Your task to perform on an android device: search for starred emails in the gmail app Image 0: 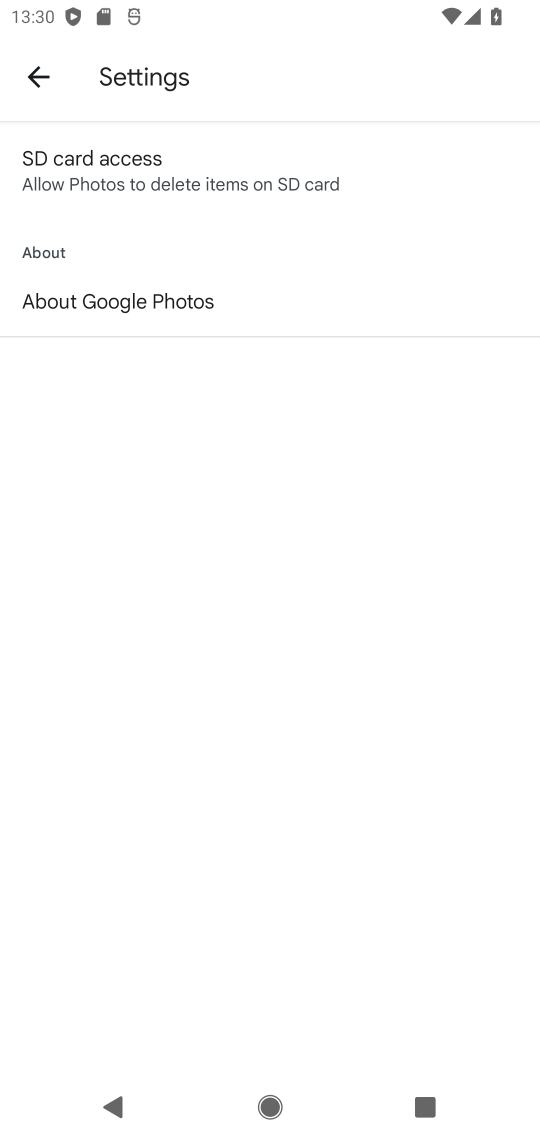
Step 0: press home button
Your task to perform on an android device: search for starred emails in the gmail app Image 1: 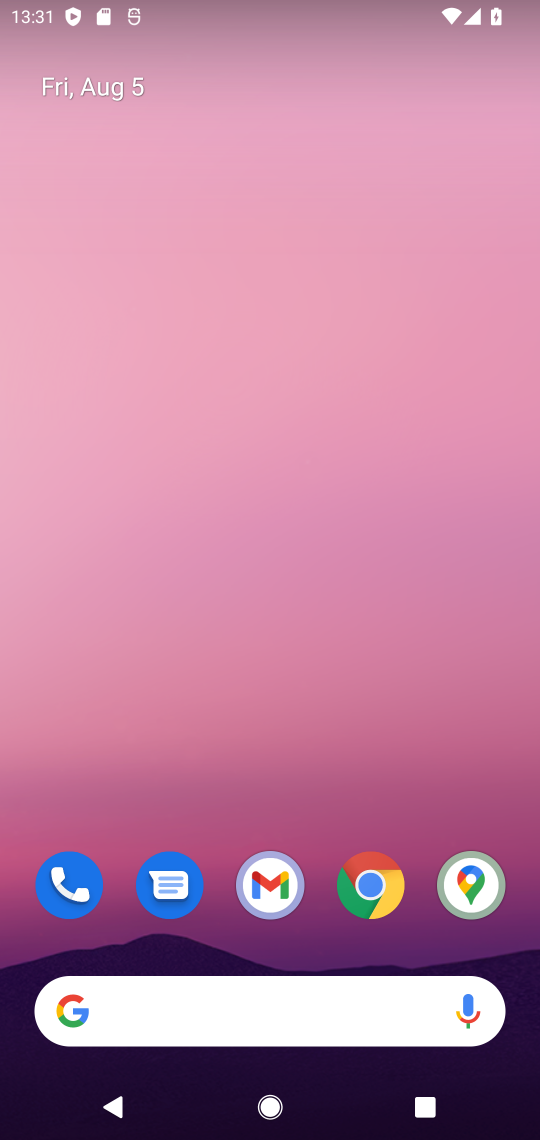
Step 1: click (264, 883)
Your task to perform on an android device: search for starred emails in the gmail app Image 2: 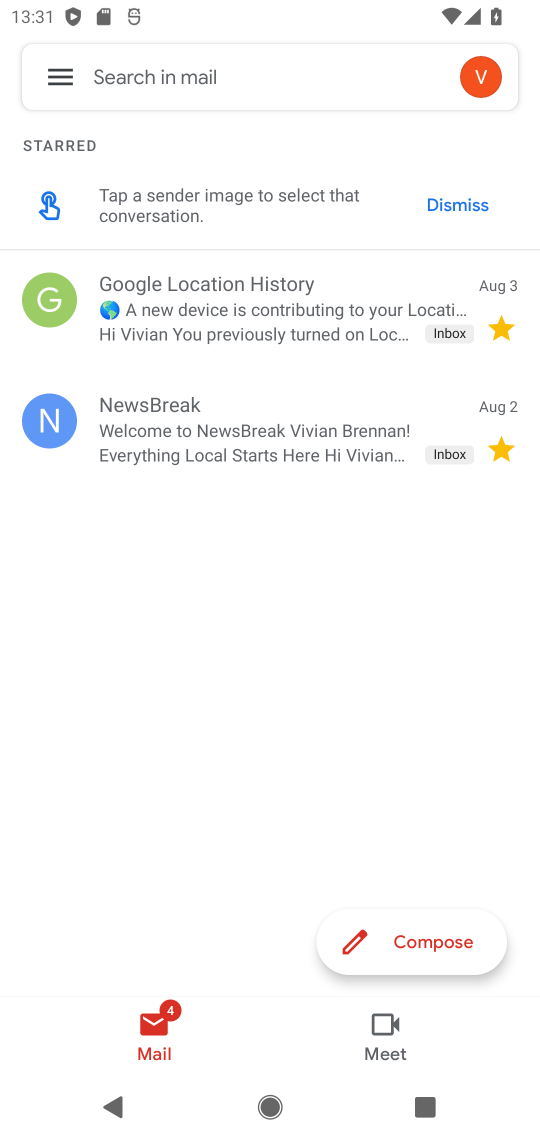
Step 2: click (57, 66)
Your task to perform on an android device: search for starred emails in the gmail app Image 3: 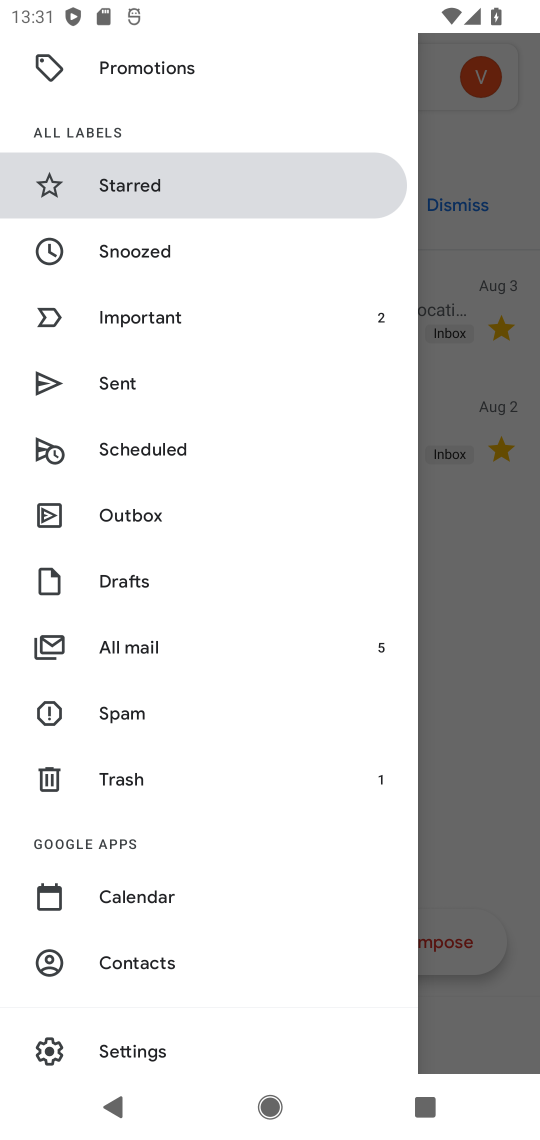
Step 3: click (151, 187)
Your task to perform on an android device: search for starred emails in the gmail app Image 4: 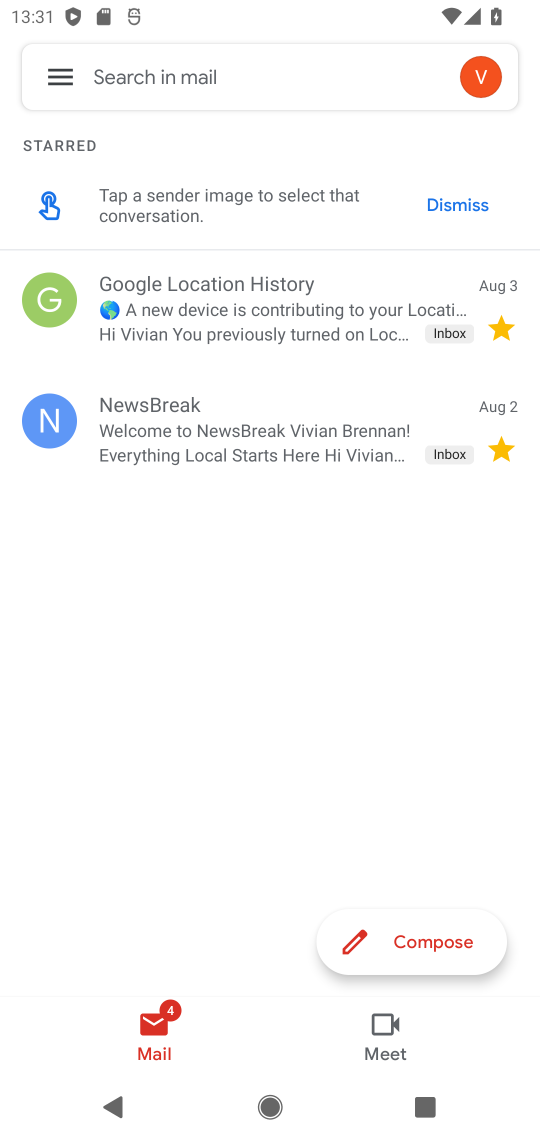
Step 4: task complete